Your task to perform on an android device: turn on notifications settings in the gmail app Image 0: 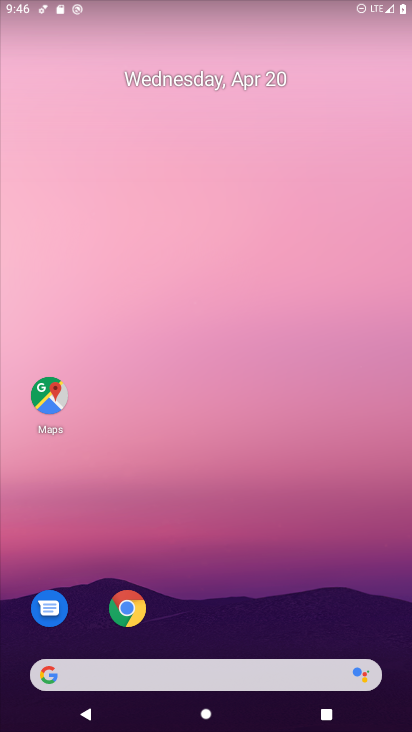
Step 0: drag from (189, 615) to (259, 30)
Your task to perform on an android device: turn on notifications settings in the gmail app Image 1: 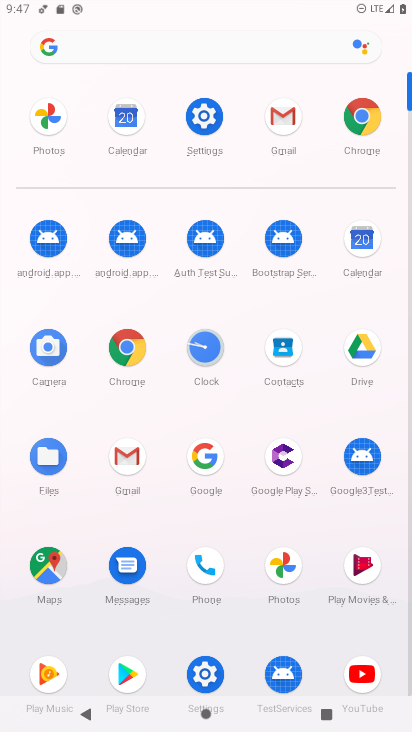
Step 1: click (124, 464)
Your task to perform on an android device: turn on notifications settings in the gmail app Image 2: 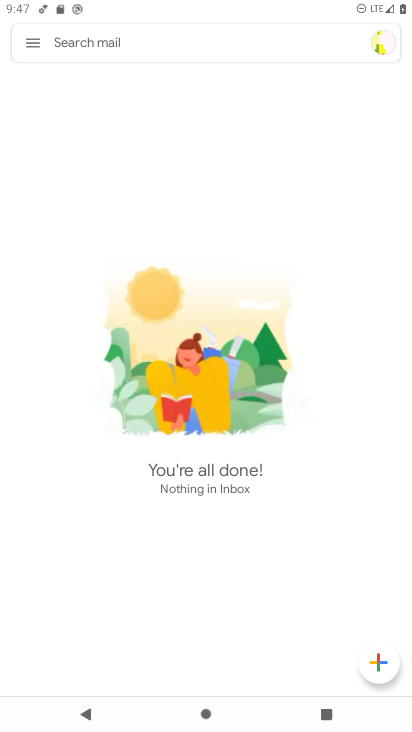
Step 2: click (30, 36)
Your task to perform on an android device: turn on notifications settings in the gmail app Image 3: 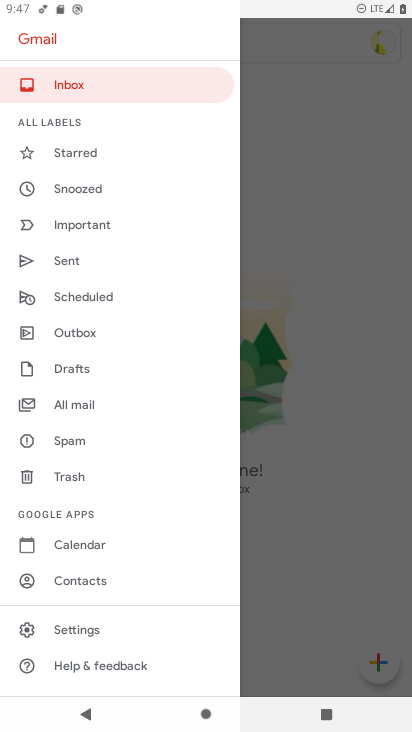
Step 3: click (75, 622)
Your task to perform on an android device: turn on notifications settings in the gmail app Image 4: 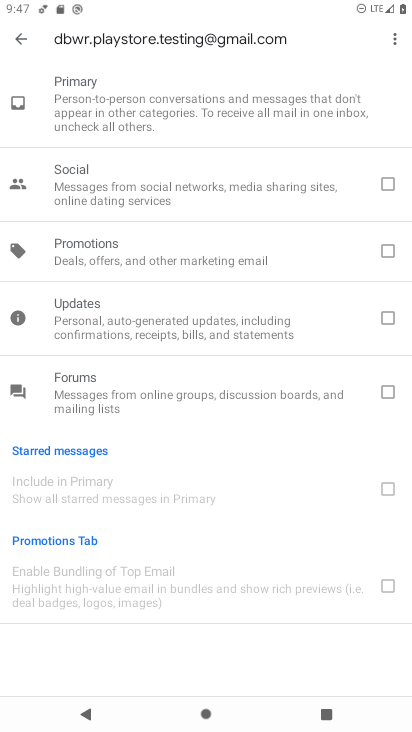
Step 4: click (28, 43)
Your task to perform on an android device: turn on notifications settings in the gmail app Image 5: 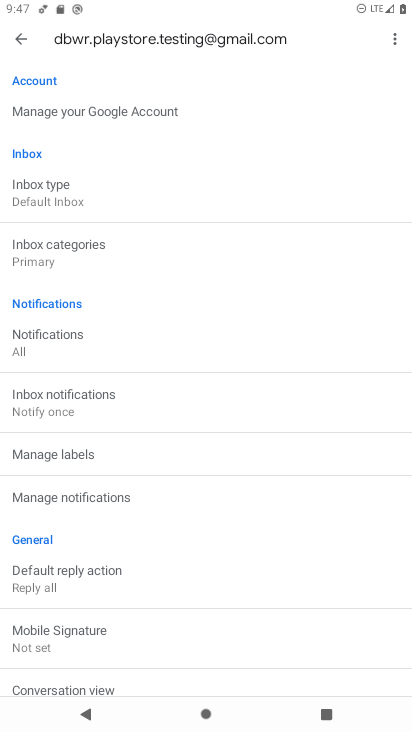
Step 5: click (13, 41)
Your task to perform on an android device: turn on notifications settings in the gmail app Image 6: 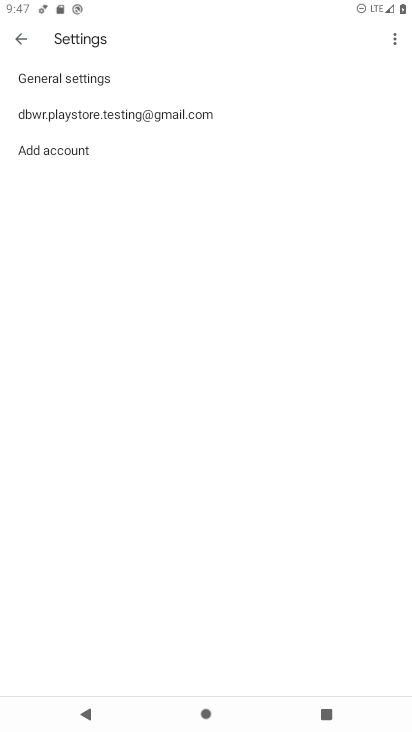
Step 6: click (88, 85)
Your task to perform on an android device: turn on notifications settings in the gmail app Image 7: 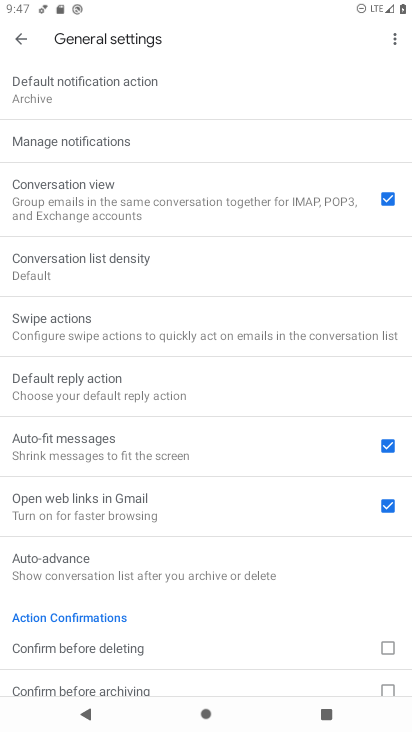
Step 7: click (89, 137)
Your task to perform on an android device: turn on notifications settings in the gmail app Image 8: 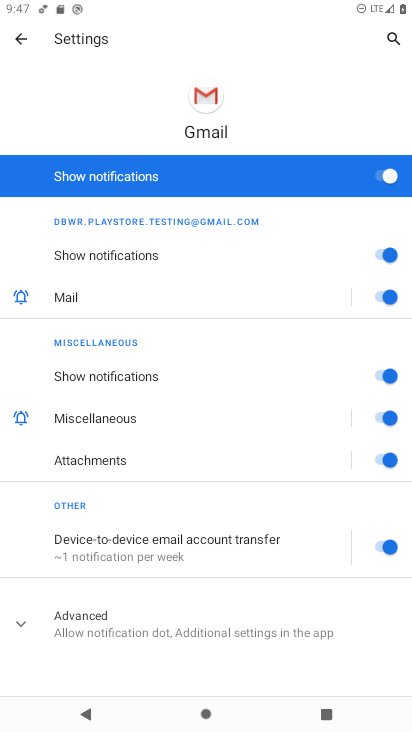
Step 8: task complete